Your task to perform on an android device: Show me popular games on the Play Store Image 0: 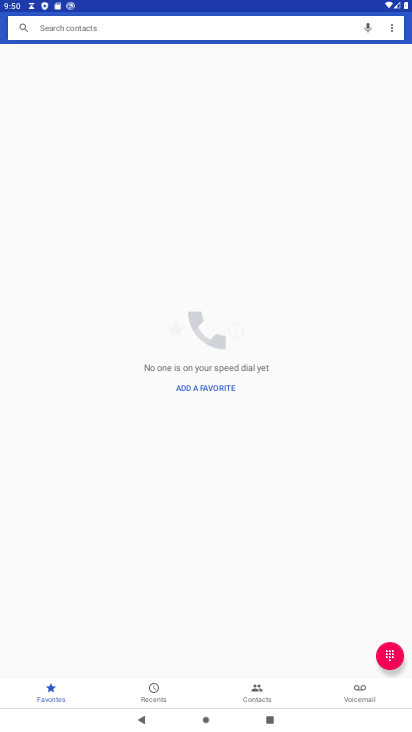
Step 0: press home button
Your task to perform on an android device: Show me popular games on the Play Store Image 1: 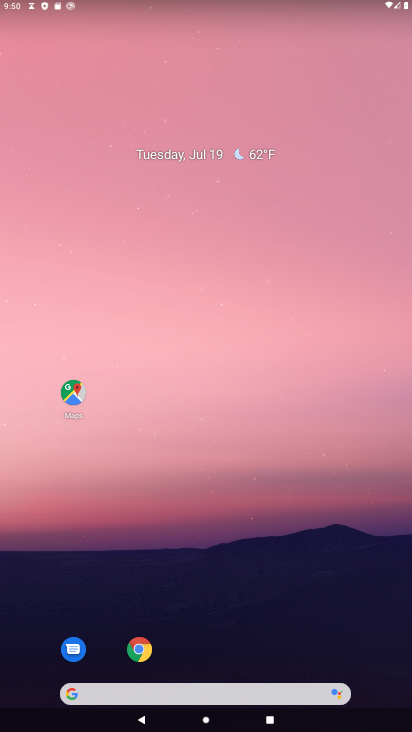
Step 1: drag from (232, 670) to (266, 32)
Your task to perform on an android device: Show me popular games on the Play Store Image 2: 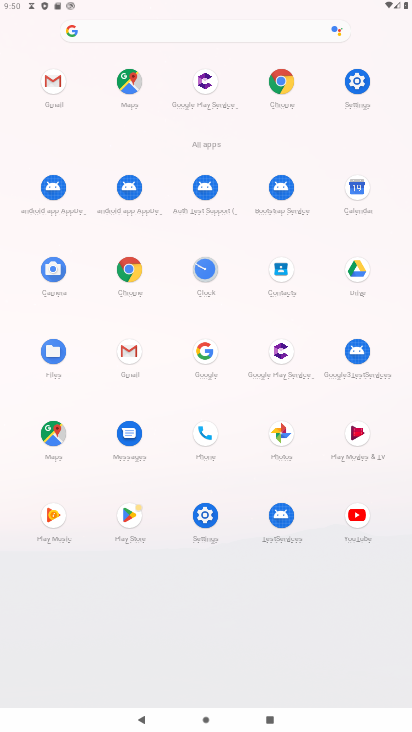
Step 2: click (130, 515)
Your task to perform on an android device: Show me popular games on the Play Store Image 3: 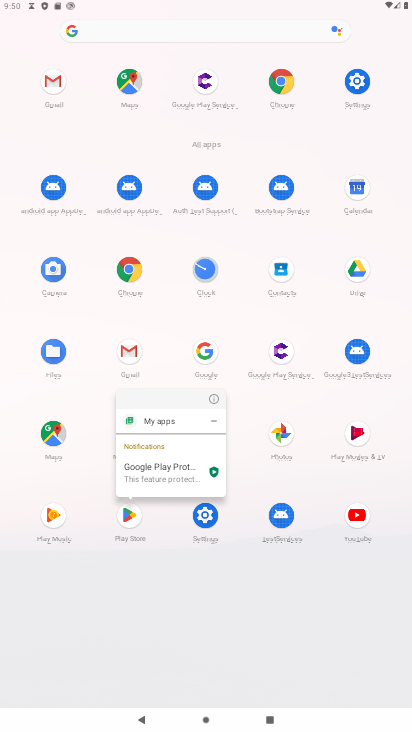
Step 3: click (219, 121)
Your task to perform on an android device: Show me popular games on the Play Store Image 4: 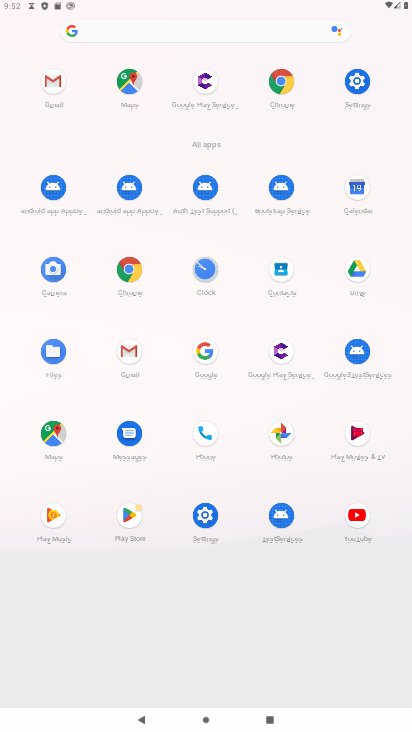
Step 4: click (146, 516)
Your task to perform on an android device: Show me popular games on the Play Store Image 5: 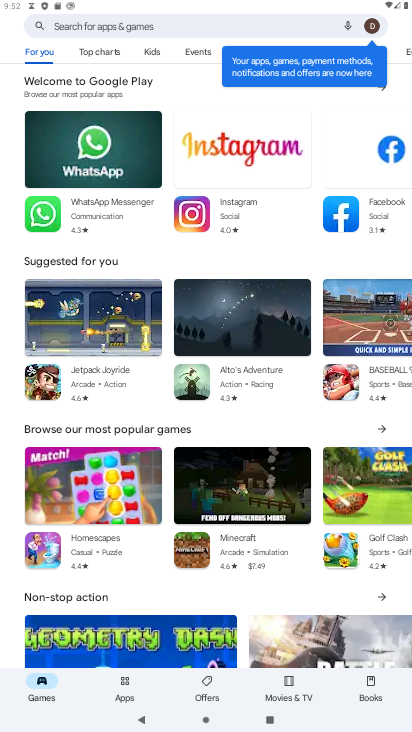
Step 5: click (90, 307)
Your task to perform on an android device: Show me popular games on the Play Store Image 6: 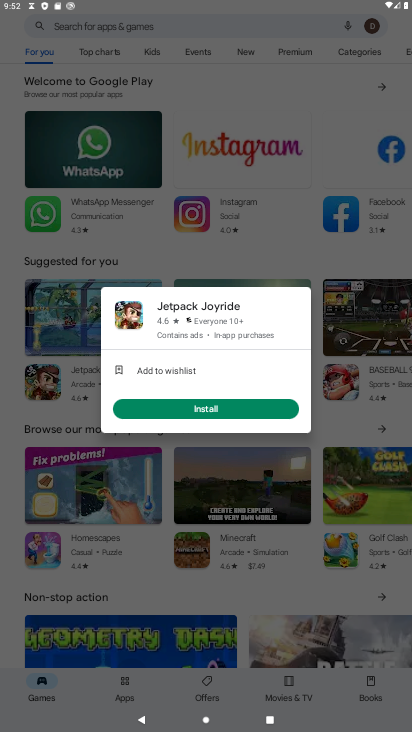
Step 6: click (358, 407)
Your task to perform on an android device: Show me popular games on the Play Store Image 7: 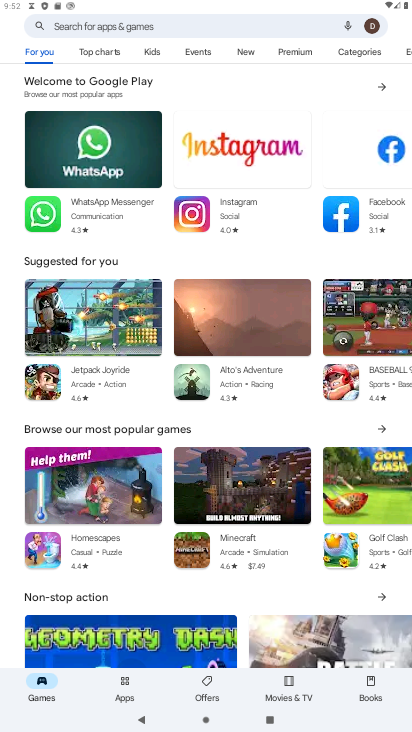
Step 7: click (389, 432)
Your task to perform on an android device: Show me popular games on the Play Store Image 8: 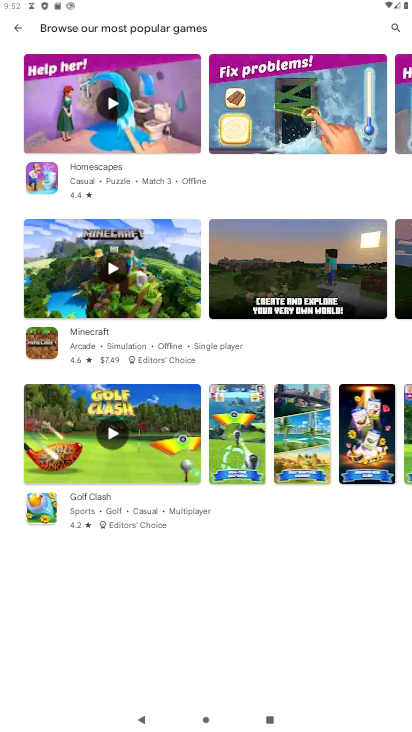
Step 8: task complete